Your task to perform on an android device: Is it going to rain this weekend? Image 0: 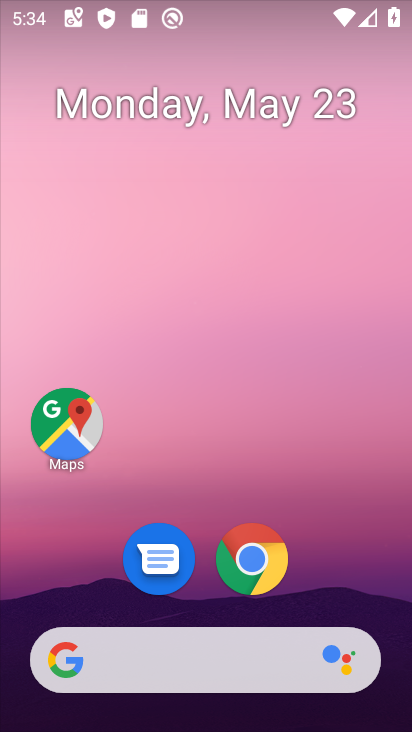
Step 0: drag from (97, 285) to (411, 234)
Your task to perform on an android device: Is it going to rain this weekend? Image 1: 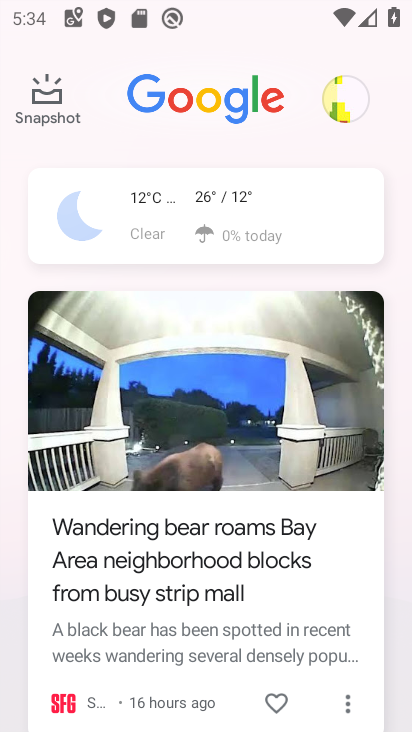
Step 1: click (285, 234)
Your task to perform on an android device: Is it going to rain this weekend? Image 2: 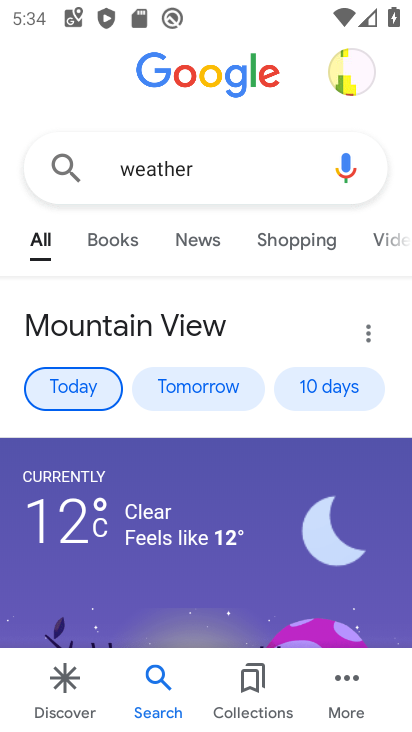
Step 2: click (326, 398)
Your task to perform on an android device: Is it going to rain this weekend? Image 3: 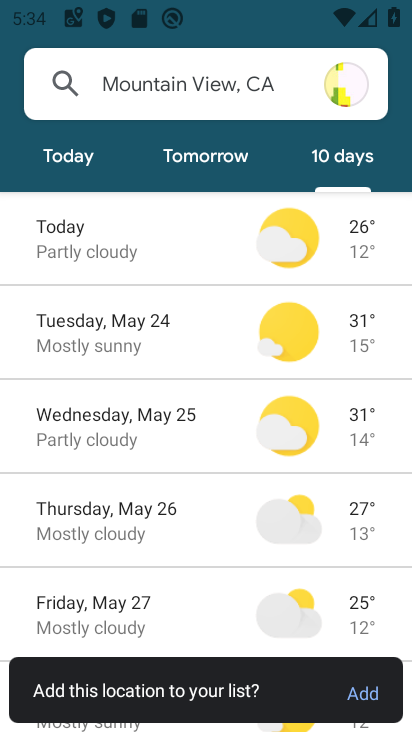
Step 3: task complete